Your task to perform on an android device: set an alarm Image 0: 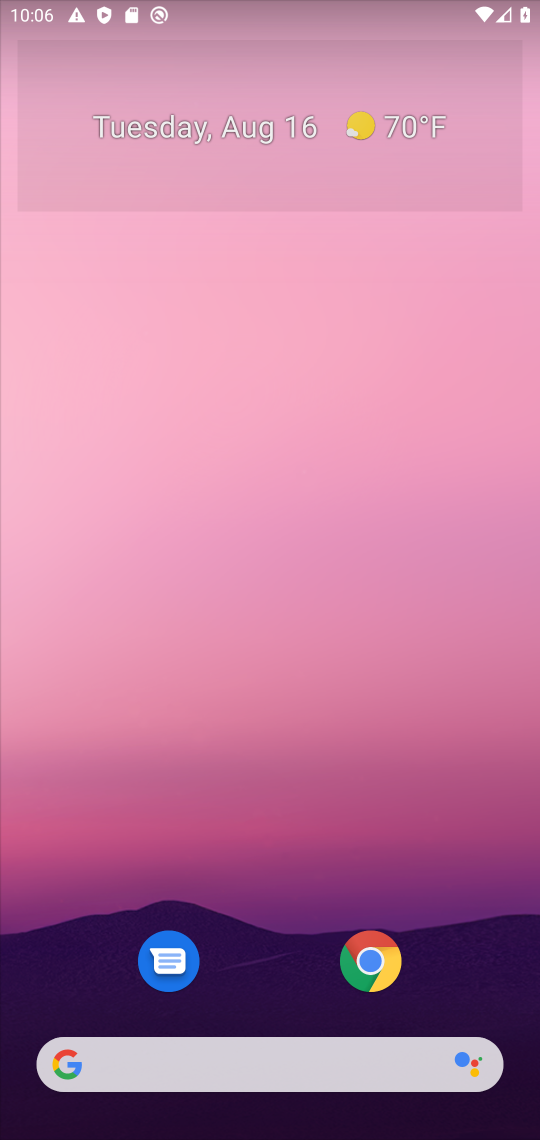
Step 0: drag from (324, 711) to (333, 126)
Your task to perform on an android device: set an alarm Image 1: 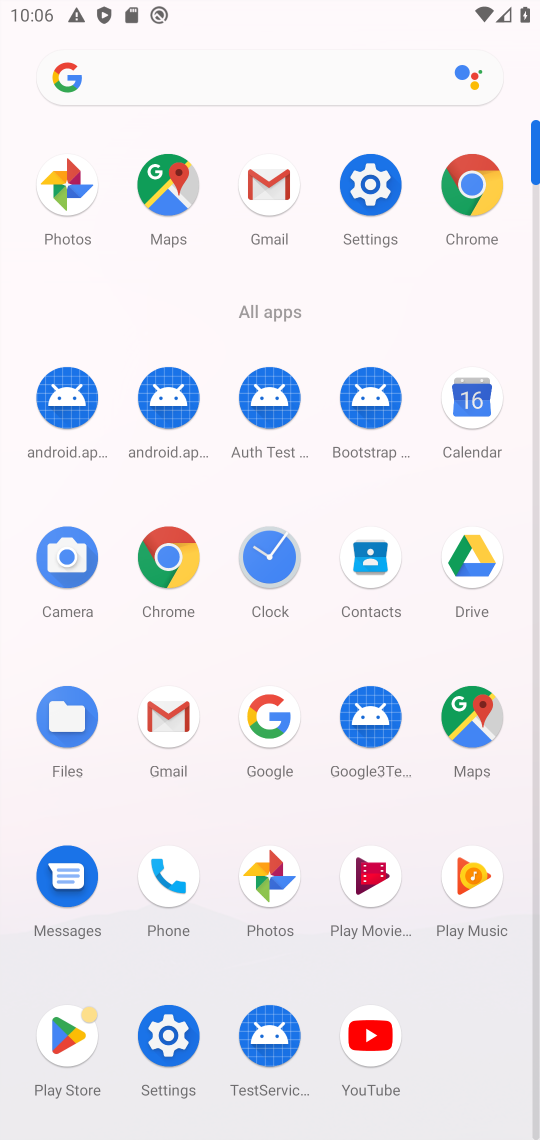
Step 1: click (280, 545)
Your task to perform on an android device: set an alarm Image 2: 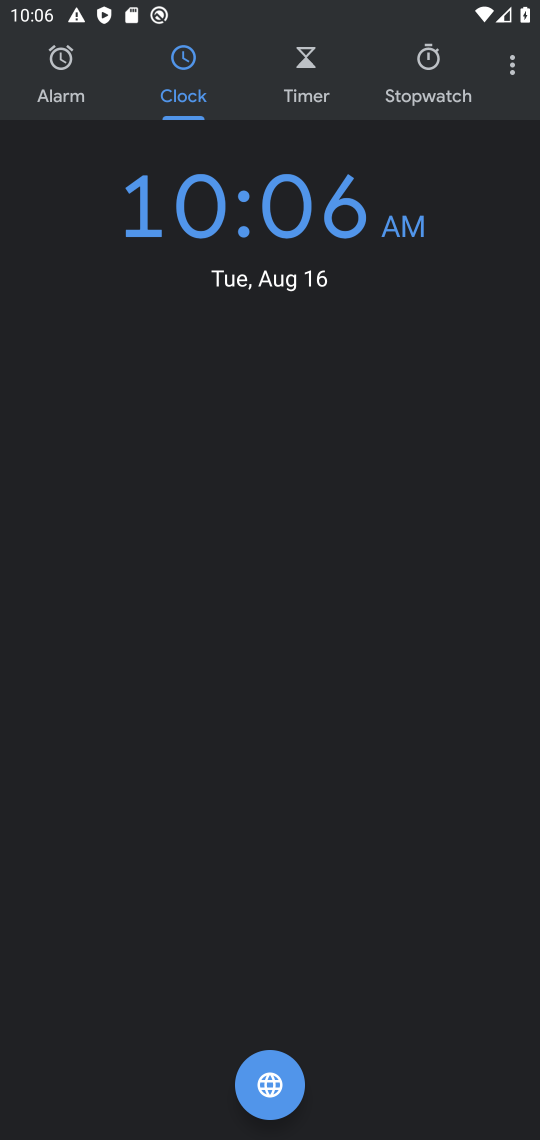
Step 2: task complete